Your task to perform on an android device: Open Chrome and go to the settings page Image 0: 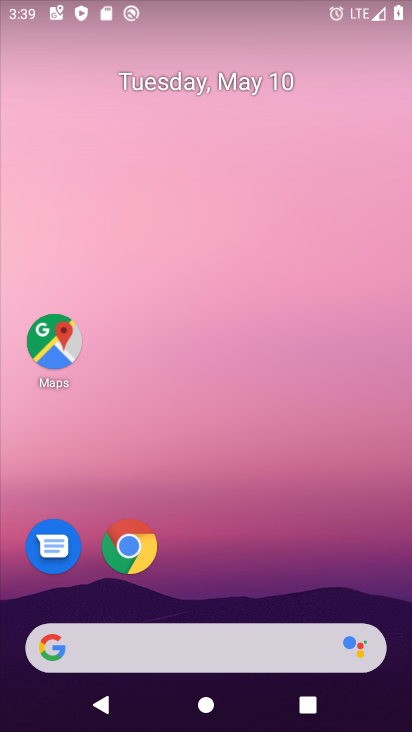
Step 0: click (147, 552)
Your task to perform on an android device: Open Chrome and go to the settings page Image 1: 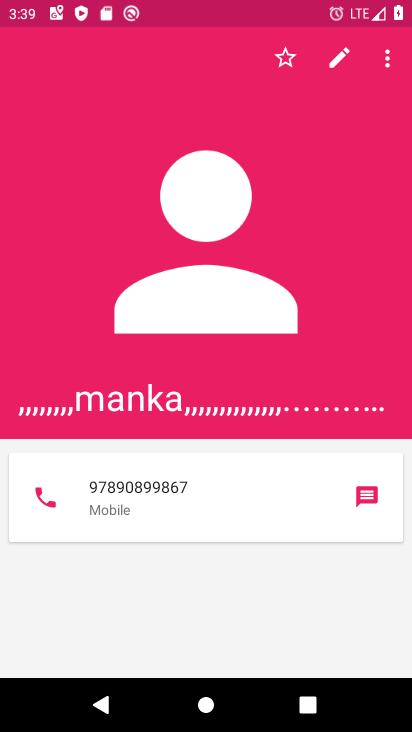
Step 1: press home button
Your task to perform on an android device: Open Chrome and go to the settings page Image 2: 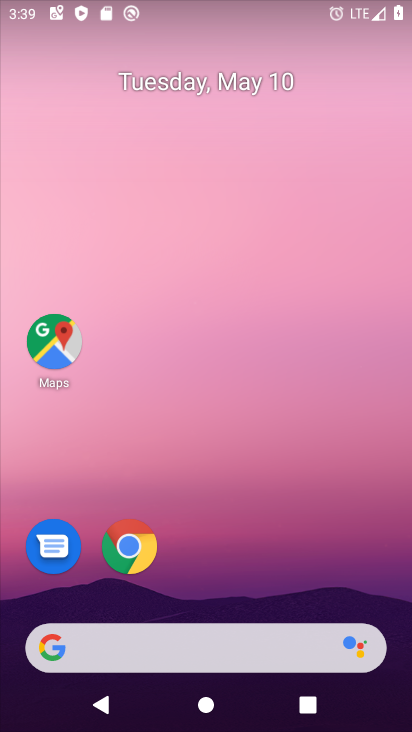
Step 2: click (138, 549)
Your task to perform on an android device: Open Chrome and go to the settings page Image 3: 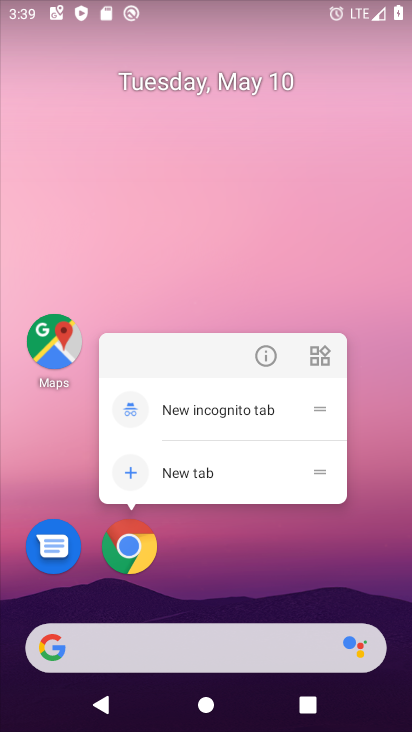
Step 3: click (138, 546)
Your task to perform on an android device: Open Chrome and go to the settings page Image 4: 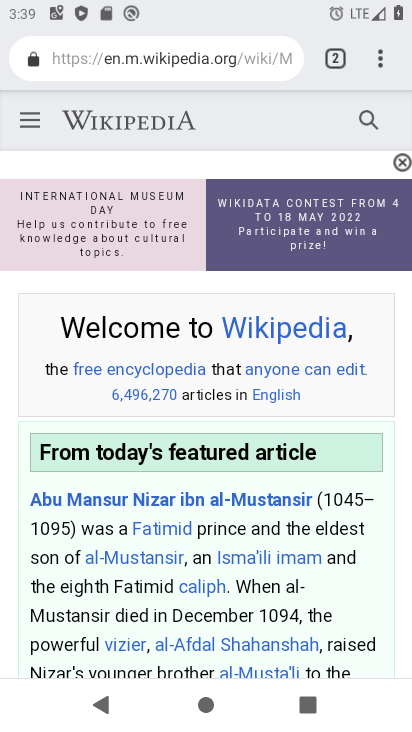
Step 4: click (385, 62)
Your task to perform on an android device: Open Chrome and go to the settings page Image 5: 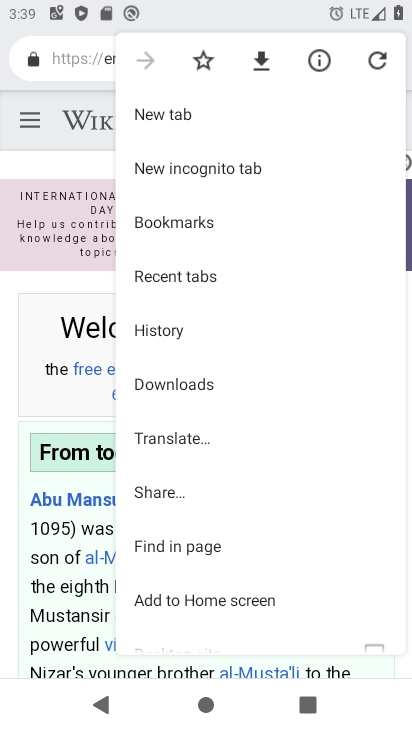
Step 5: drag from (190, 513) to (233, 235)
Your task to perform on an android device: Open Chrome and go to the settings page Image 6: 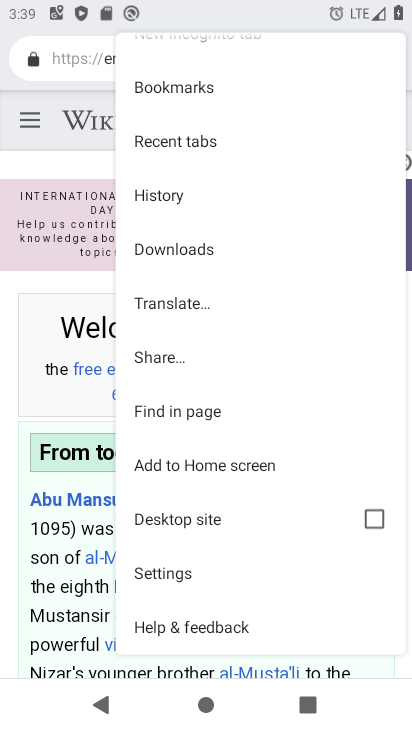
Step 6: click (186, 581)
Your task to perform on an android device: Open Chrome and go to the settings page Image 7: 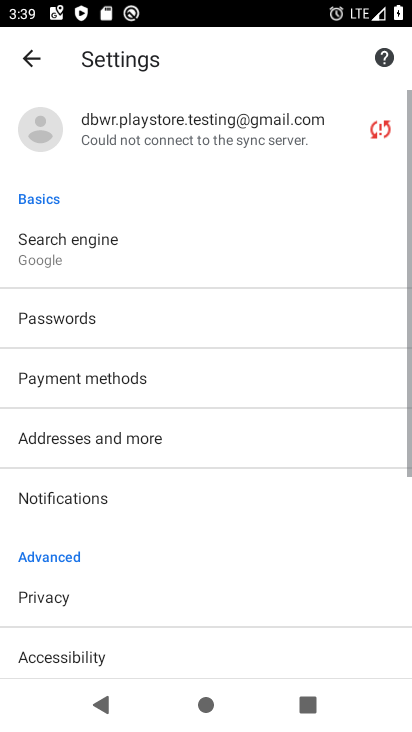
Step 7: task complete